Your task to perform on an android device: Go to settings Image 0: 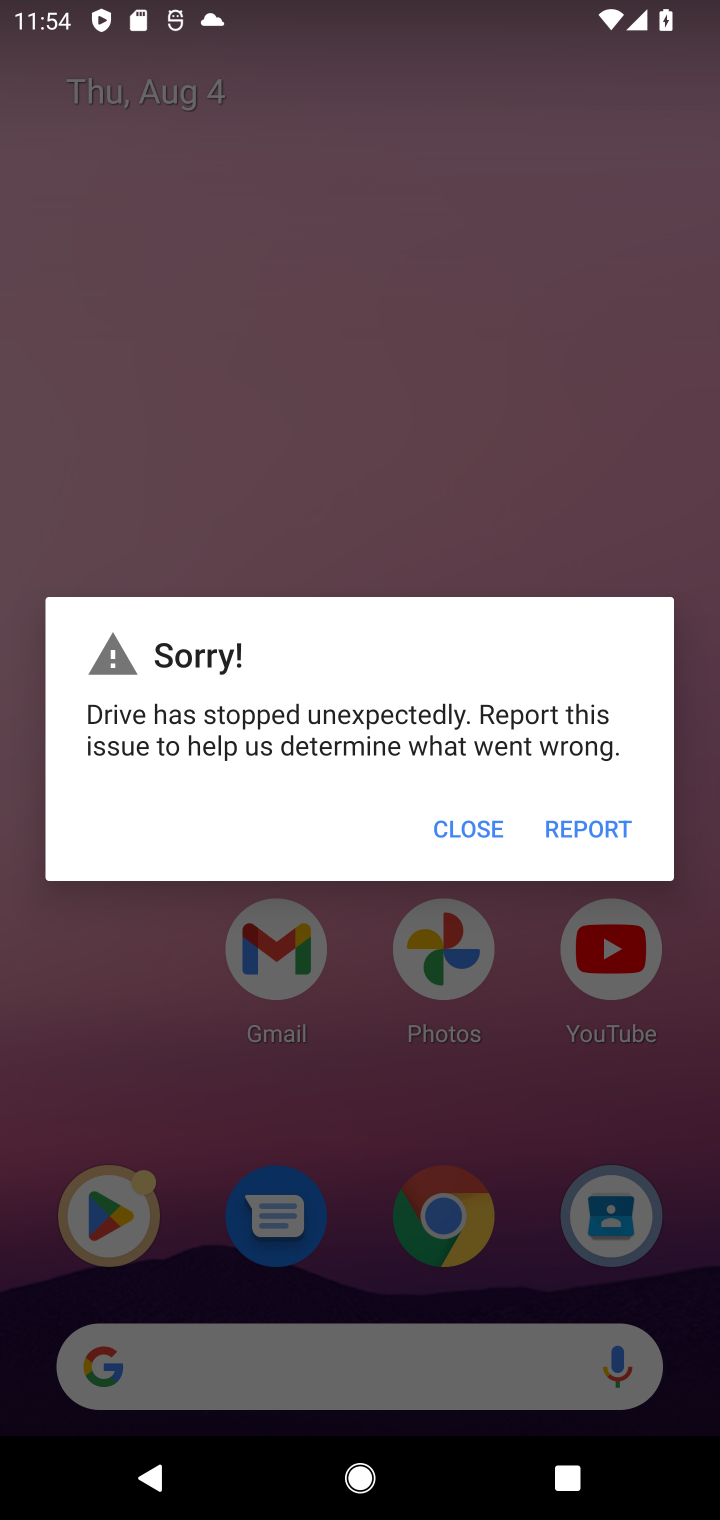
Step 0: press home button
Your task to perform on an android device: Go to settings Image 1: 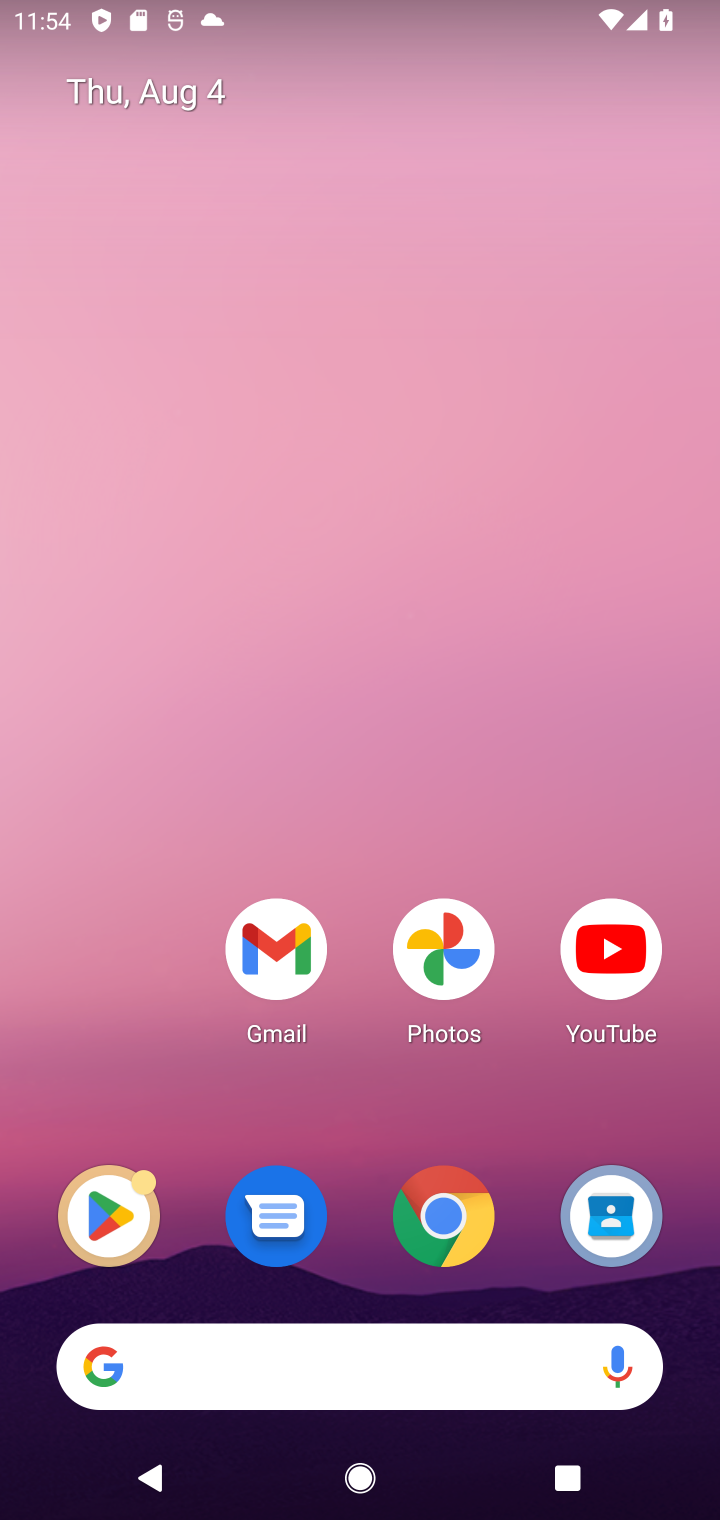
Step 1: drag from (315, 1382) to (357, 335)
Your task to perform on an android device: Go to settings Image 2: 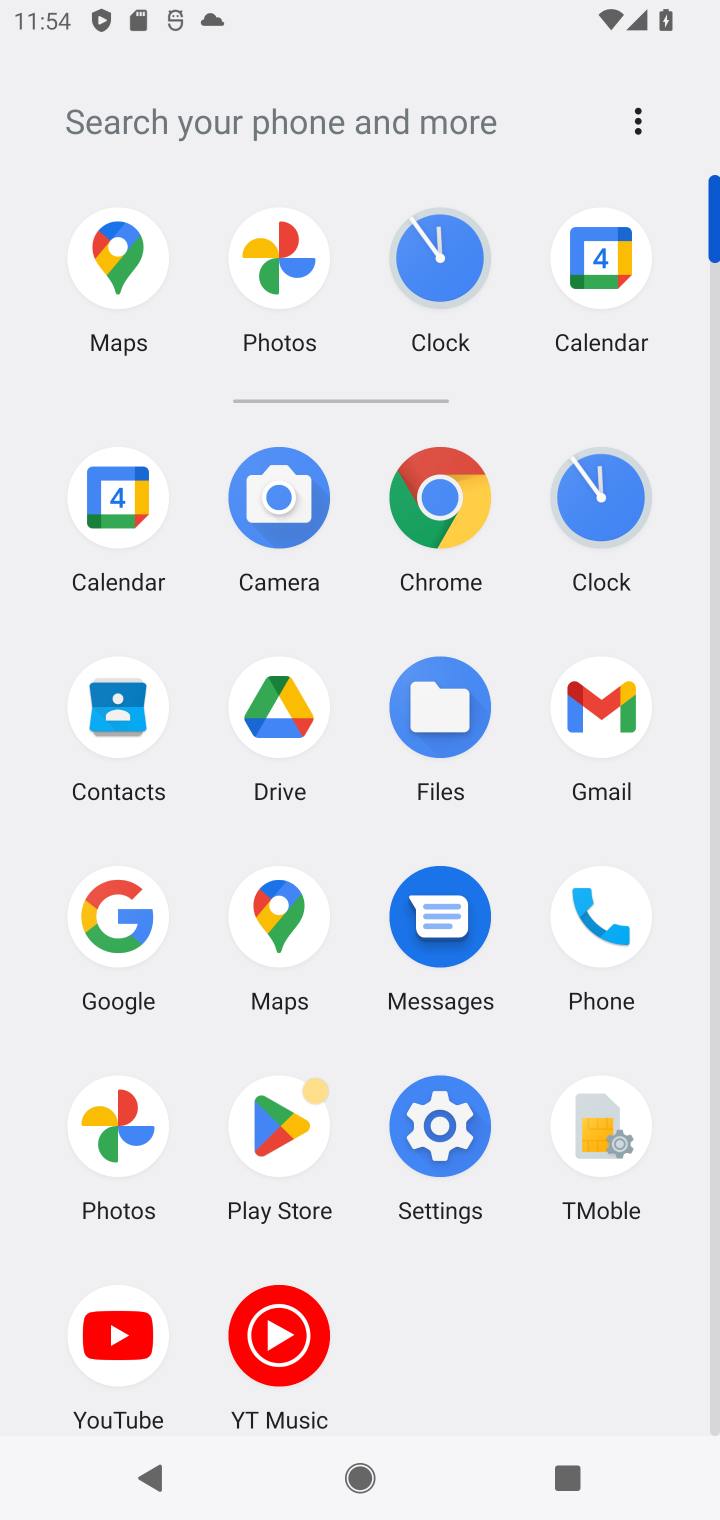
Step 2: click (440, 1128)
Your task to perform on an android device: Go to settings Image 3: 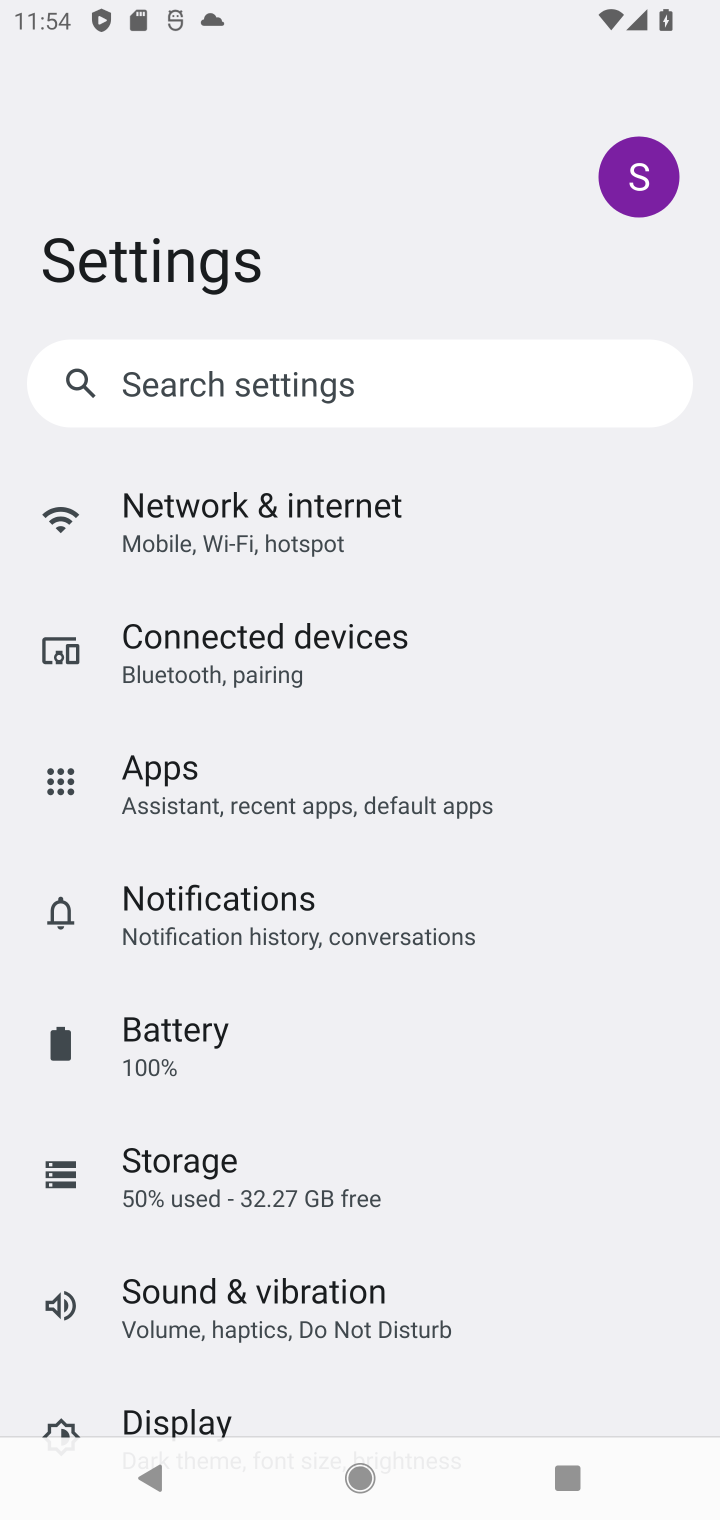
Step 3: task complete